Your task to perform on an android device: toggle notifications settings in the gmail app Image 0: 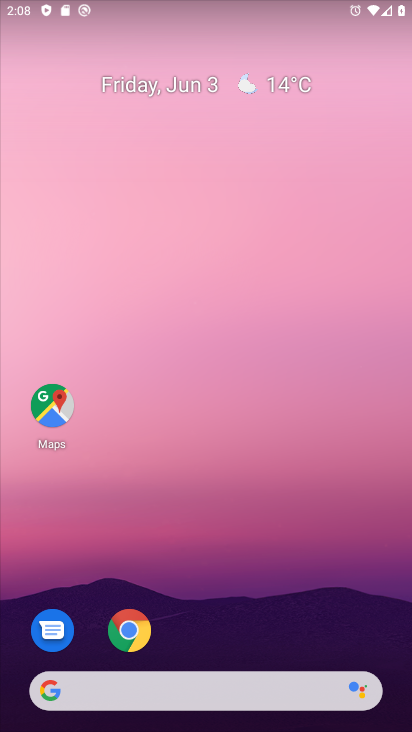
Step 0: drag from (164, 649) to (249, 171)
Your task to perform on an android device: toggle notifications settings in the gmail app Image 1: 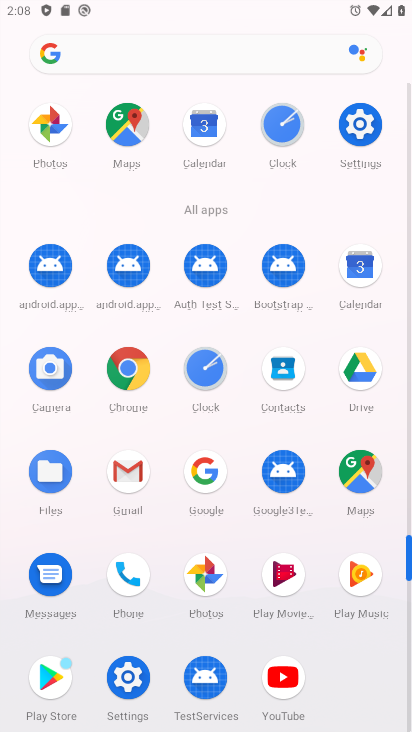
Step 1: click (136, 490)
Your task to perform on an android device: toggle notifications settings in the gmail app Image 2: 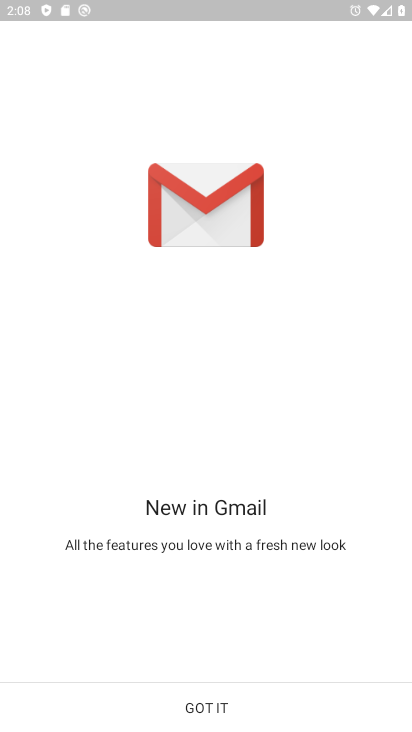
Step 2: click (226, 713)
Your task to perform on an android device: toggle notifications settings in the gmail app Image 3: 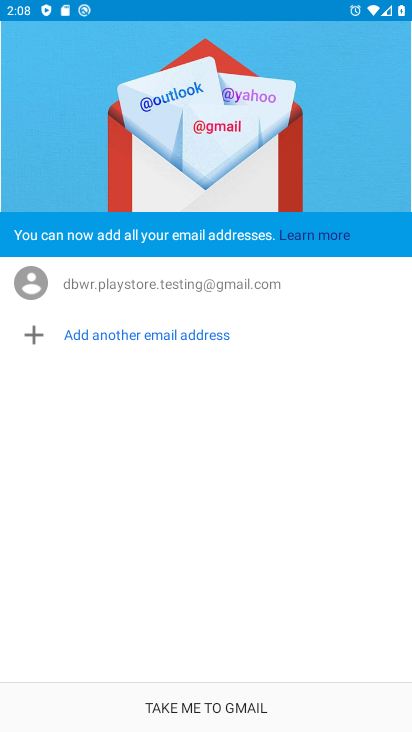
Step 3: click (225, 697)
Your task to perform on an android device: toggle notifications settings in the gmail app Image 4: 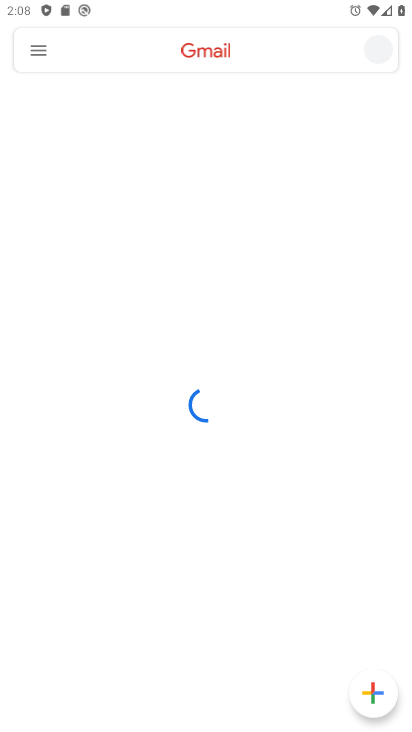
Step 4: click (40, 56)
Your task to perform on an android device: toggle notifications settings in the gmail app Image 5: 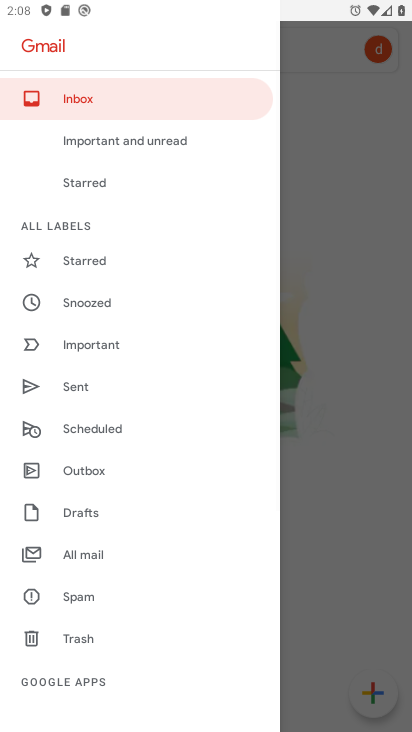
Step 5: drag from (91, 655) to (169, 297)
Your task to perform on an android device: toggle notifications settings in the gmail app Image 6: 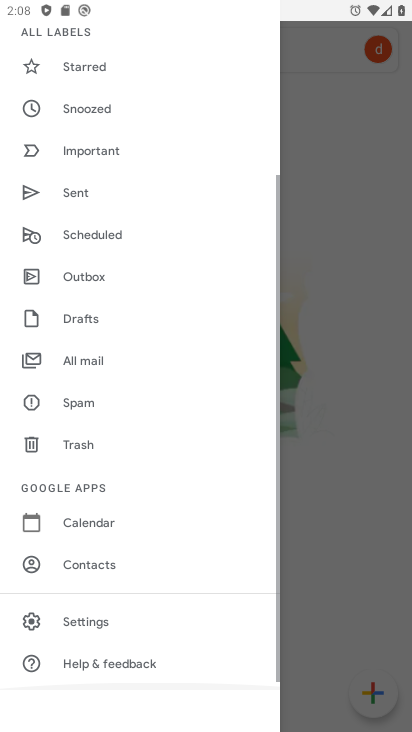
Step 6: click (113, 622)
Your task to perform on an android device: toggle notifications settings in the gmail app Image 7: 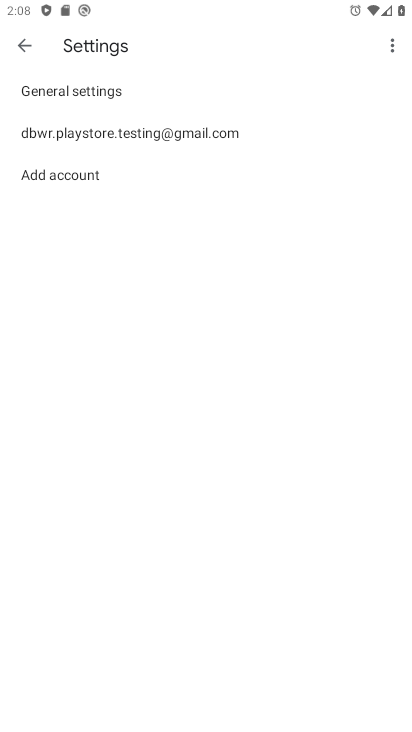
Step 7: click (213, 142)
Your task to perform on an android device: toggle notifications settings in the gmail app Image 8: 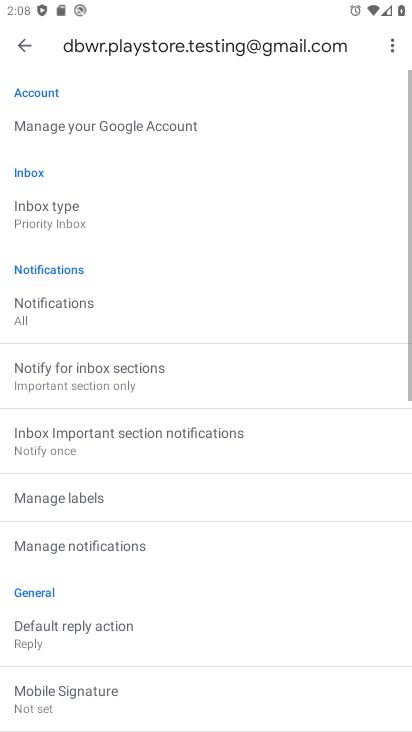
Step 8: drag from (229, 490) to (277, 310)
Your task to perform on an android device: toggle notifications settings in the gmail app Image 9: 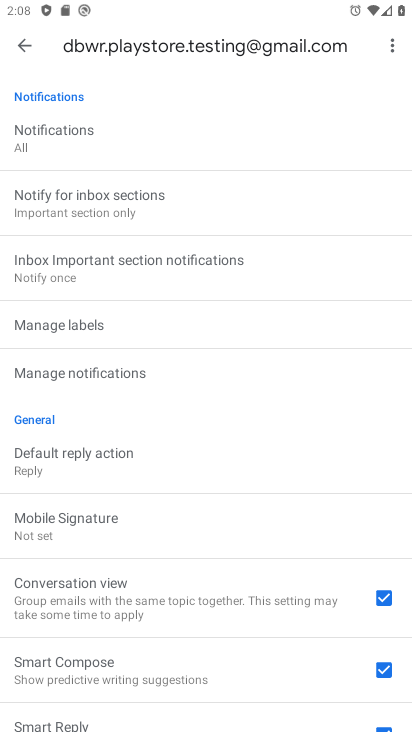
Step 9: click (176, 383)
Your task to perform on an android device: toggle notifications settings in the gmail app Image 10: 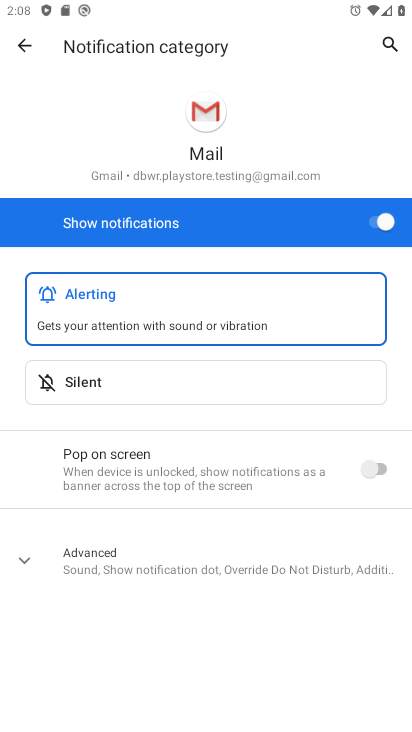
Step 10: click (374, 220)
Your task to perform on an android device: toggle notifications settings in the gmail app Image 11: 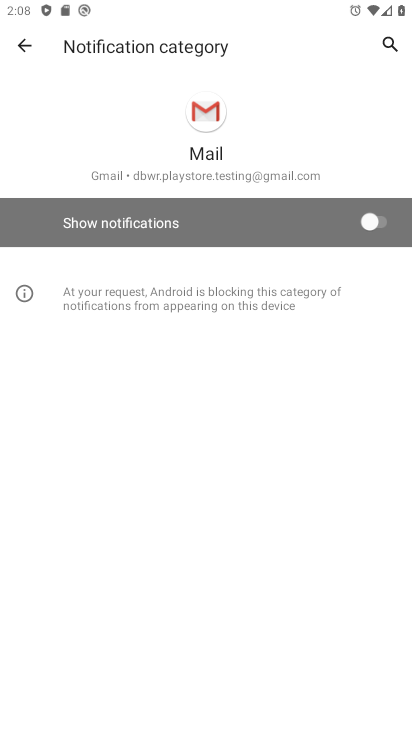
Step 11: task complete